Your task to perform on an android device: Go to privacy settings Image 0: 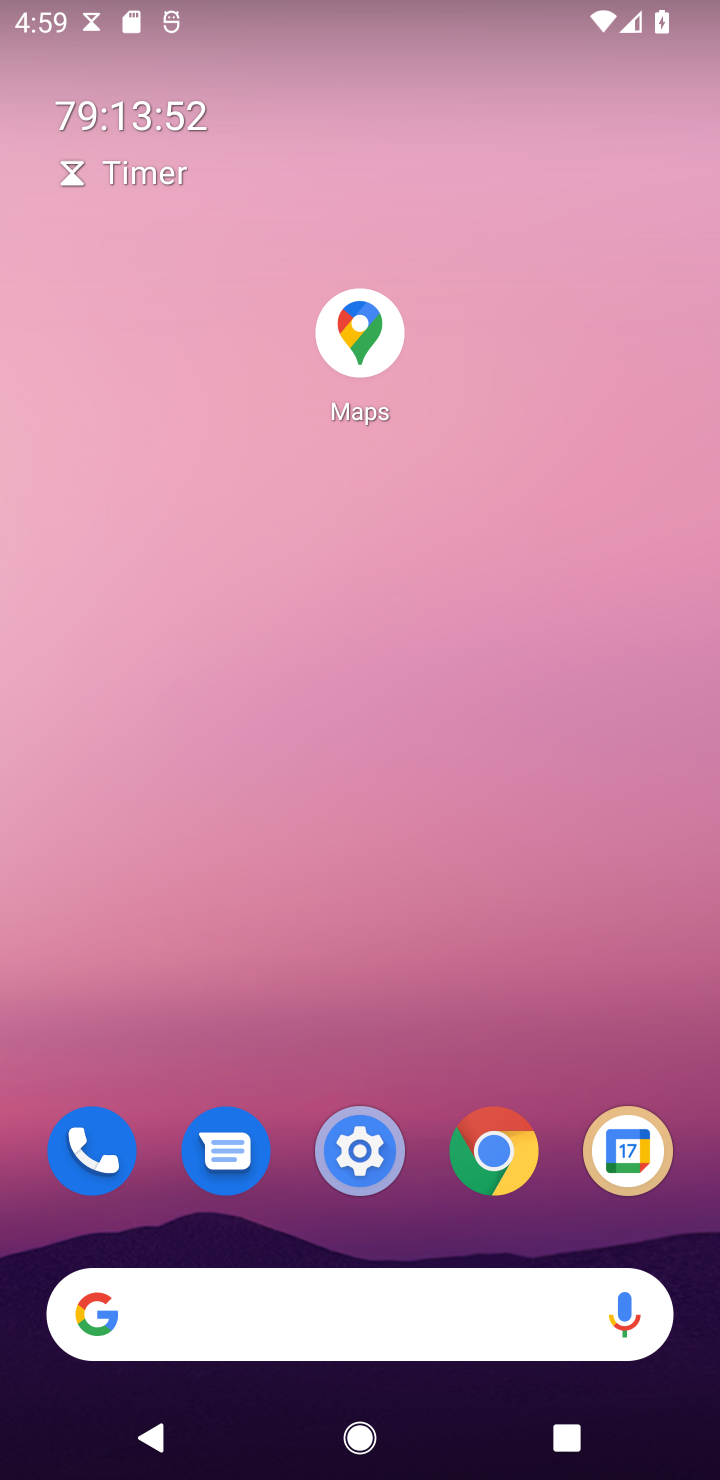
Step 0: drag from (398, 1102) to (408, 320)
Your task to perform on an android device: Go to privacy settings Image 1: 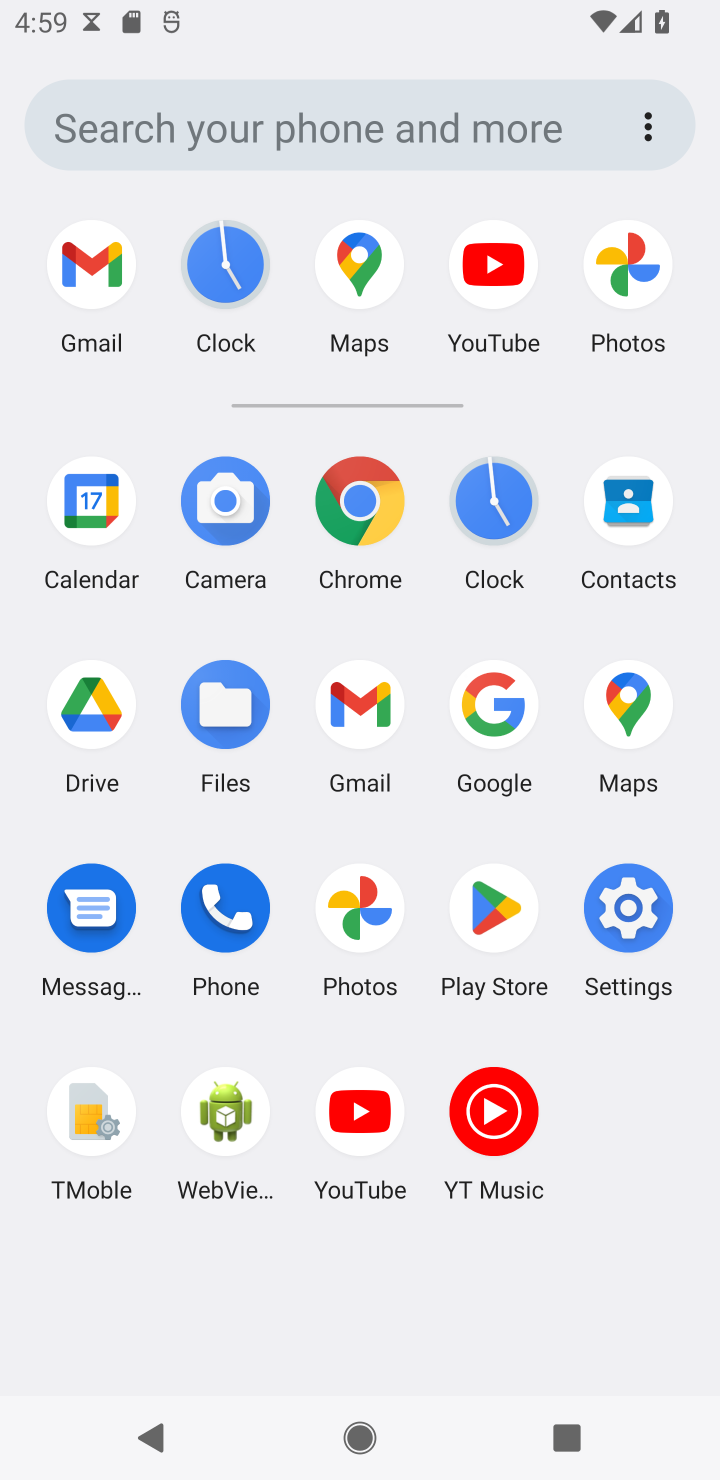
Step 1: click (652, 900)
Your task to perform on an android device: Go to privacy settings Image 2: 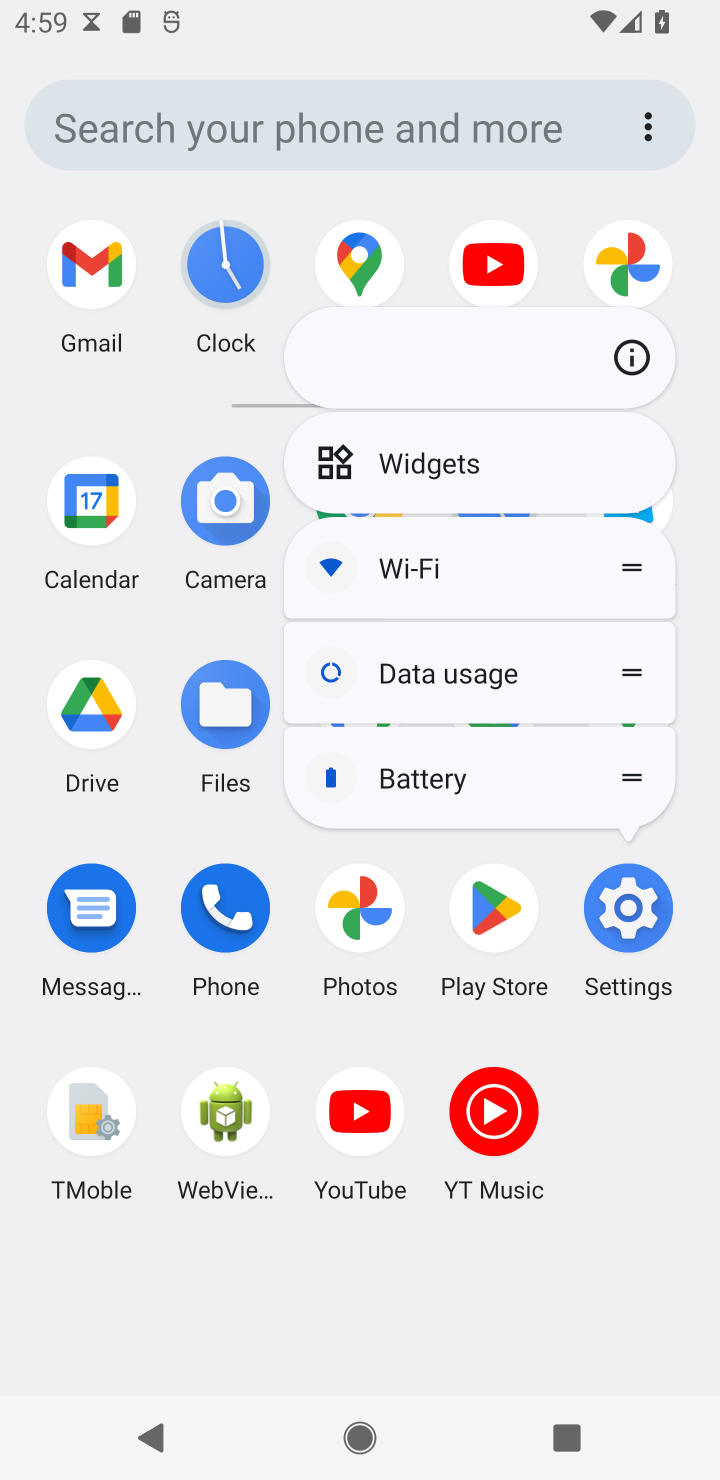
Step 2: click (652, 900)
Your task to perform on an android device: Go to privacy settings Image 3: 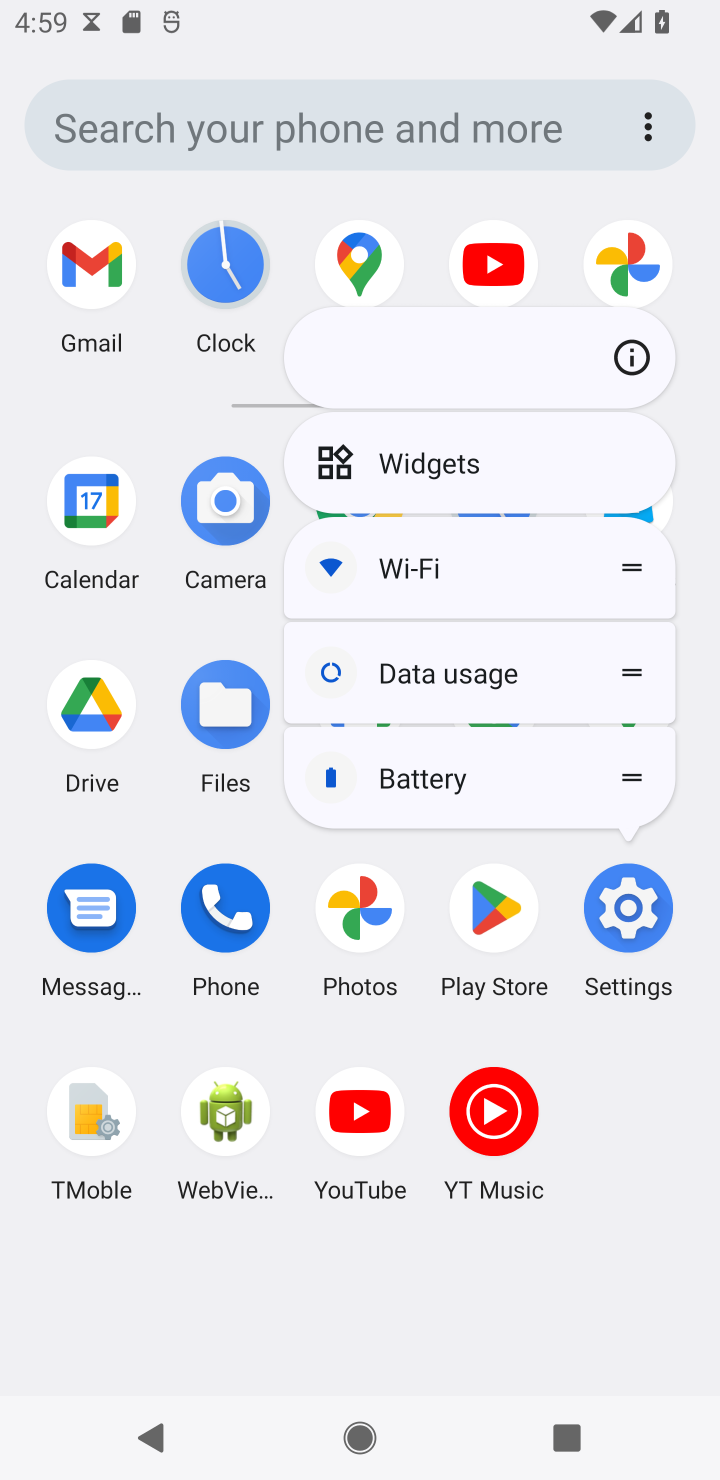
Step 3: click (621, 931)
Your task to perform on an android device: Go to privacy settings Image 4: 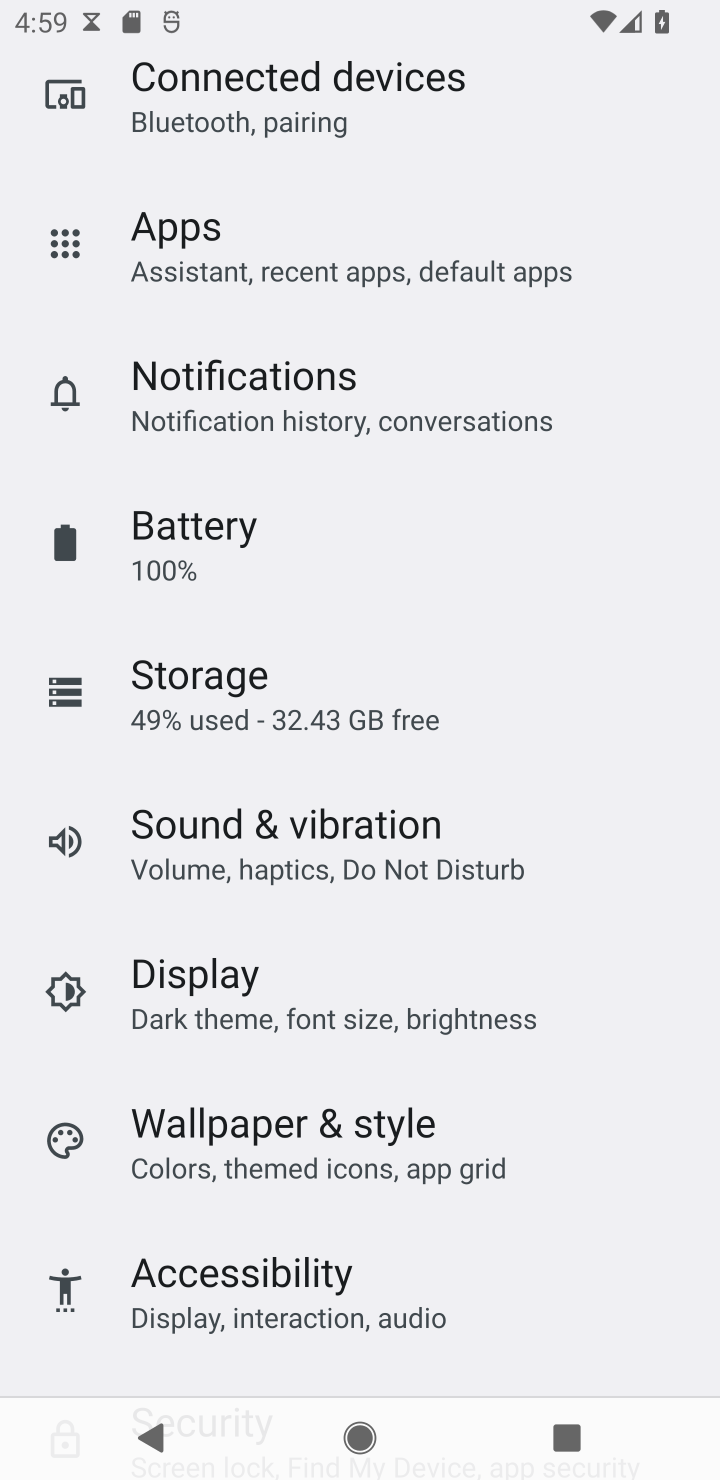
Step 4: drag from (254, 1150) to (465, 339)
Your task to perform on an android device: Go to privacy settings Image 5: 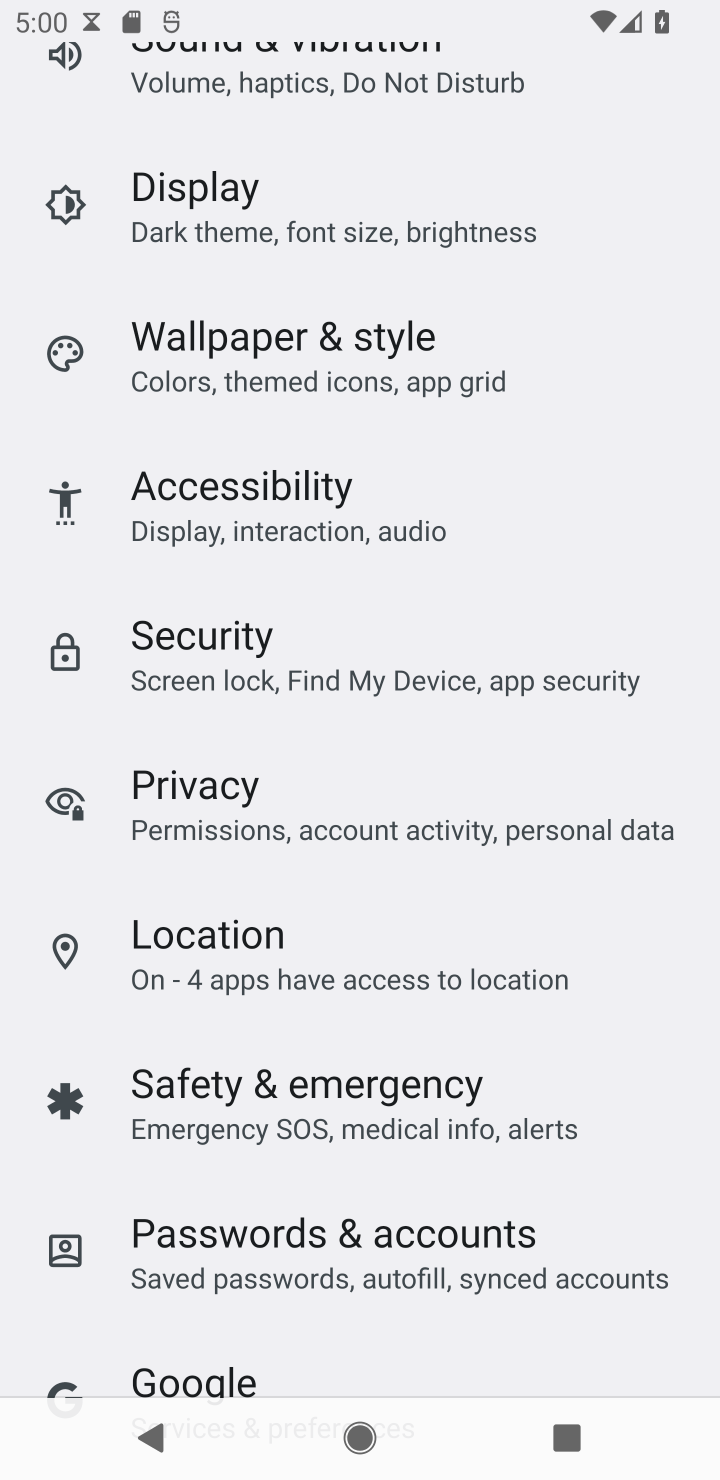
Step 5: click (234, 818)
Your task to perform on an android device: Go to privacy settings Image 6: 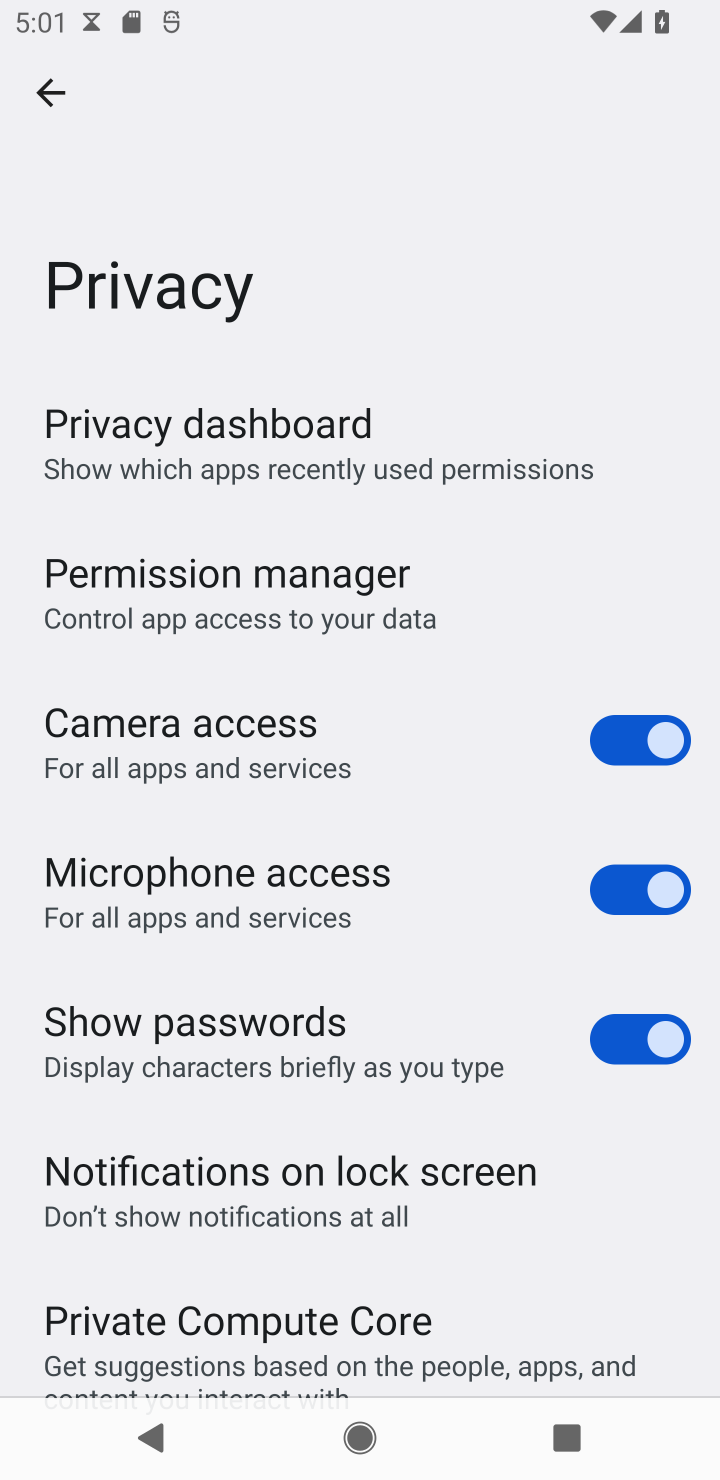
Step 6: task complete